Your task to perform on an android device: Go to battery settings Image 0: 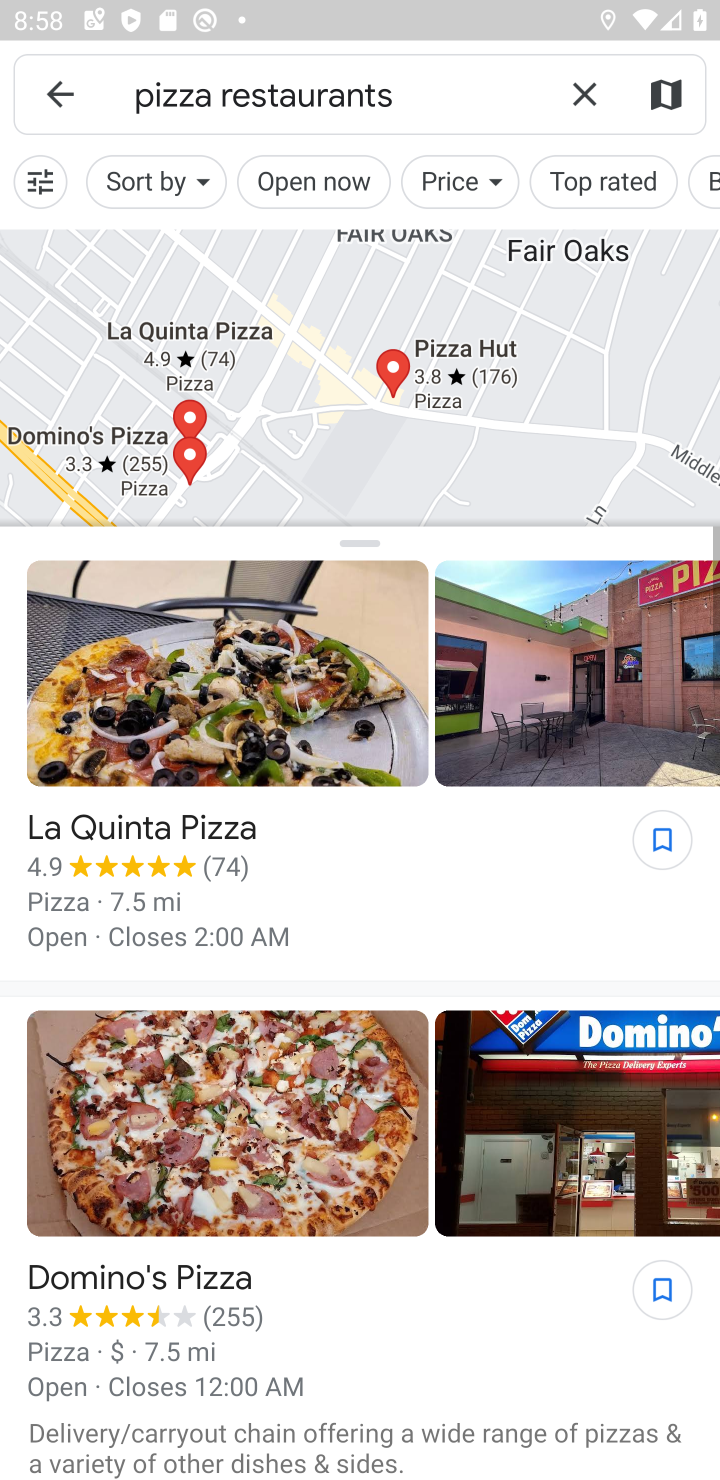
Step 0: press home button
Your task to perform on an android device: Go to battery settings Image 1: 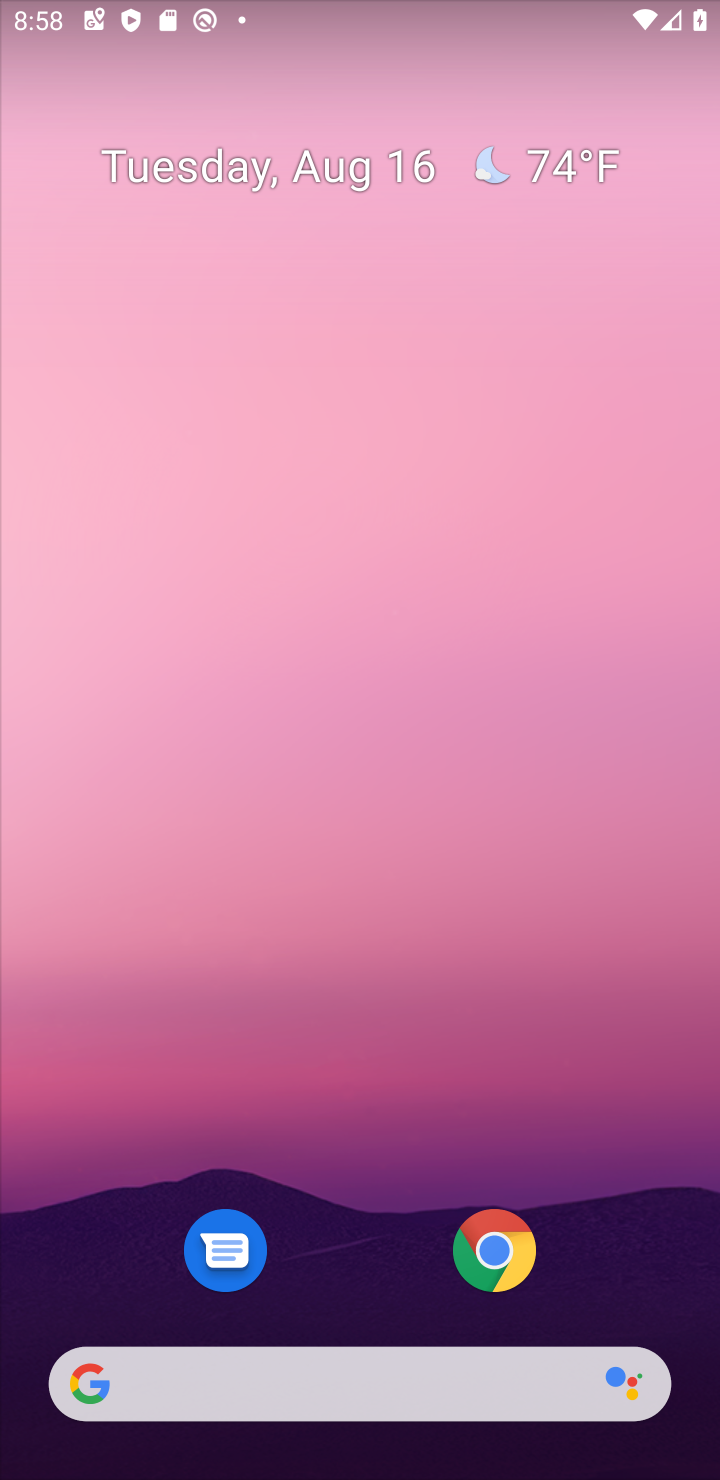
Step 1: drag from (337, 29) to (423, 1164)
Your task to perform on an android device: Go to battery settings Image 2: 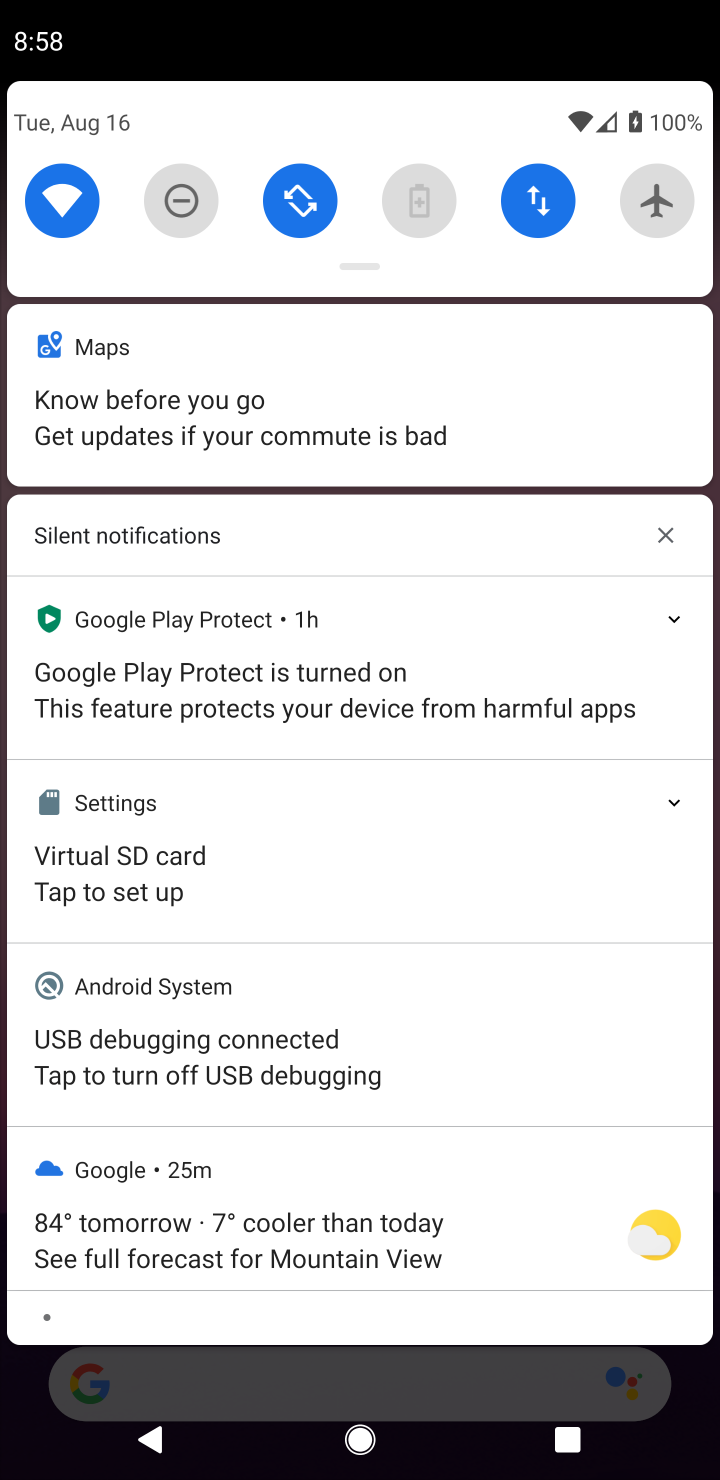
Step 2: click (414, 191)
Your task to perform on an android device: Go to battery settings Image 3: 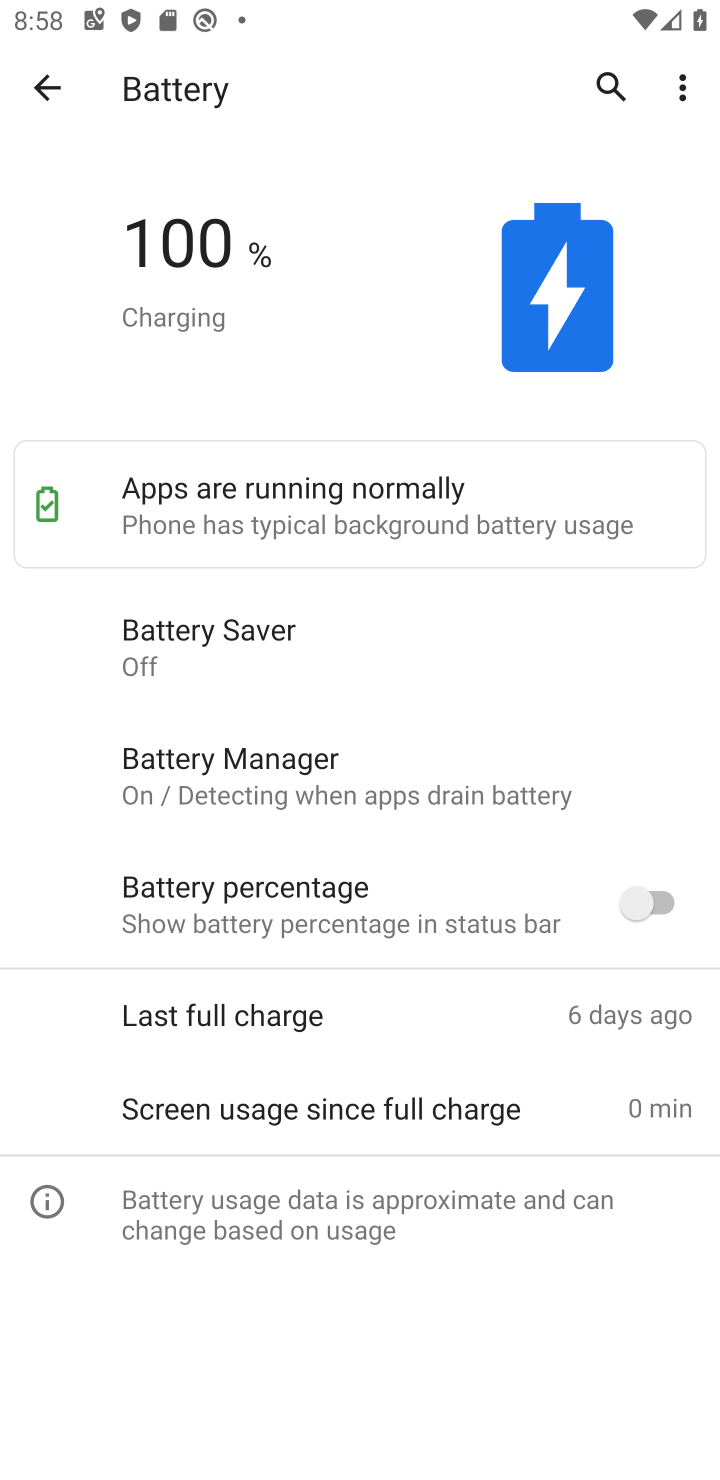
Step 3: task complete